Your task to perform on an android device: turn off airplane mode Image 0: 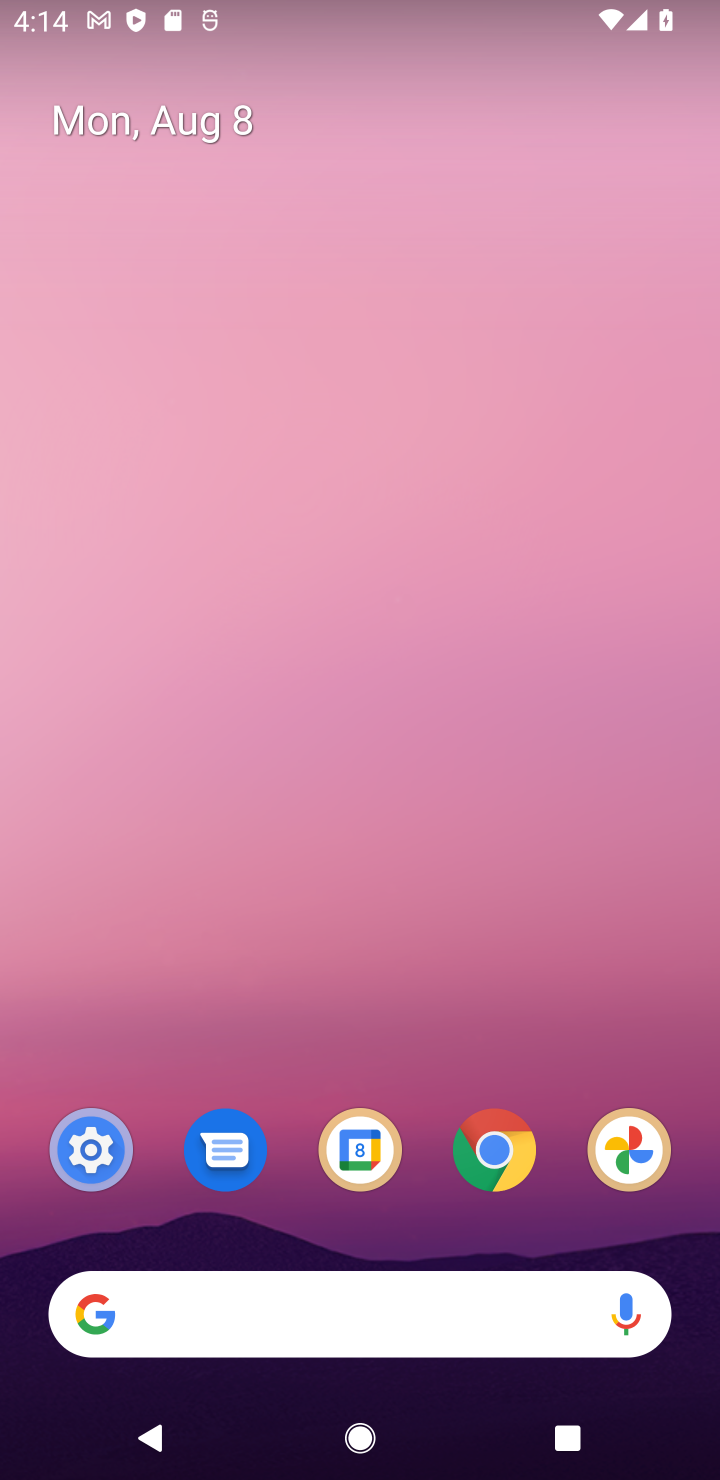
Step 0: click (103, 1170)
Your task to perform on an android device: turn off airplane mode Image 1: 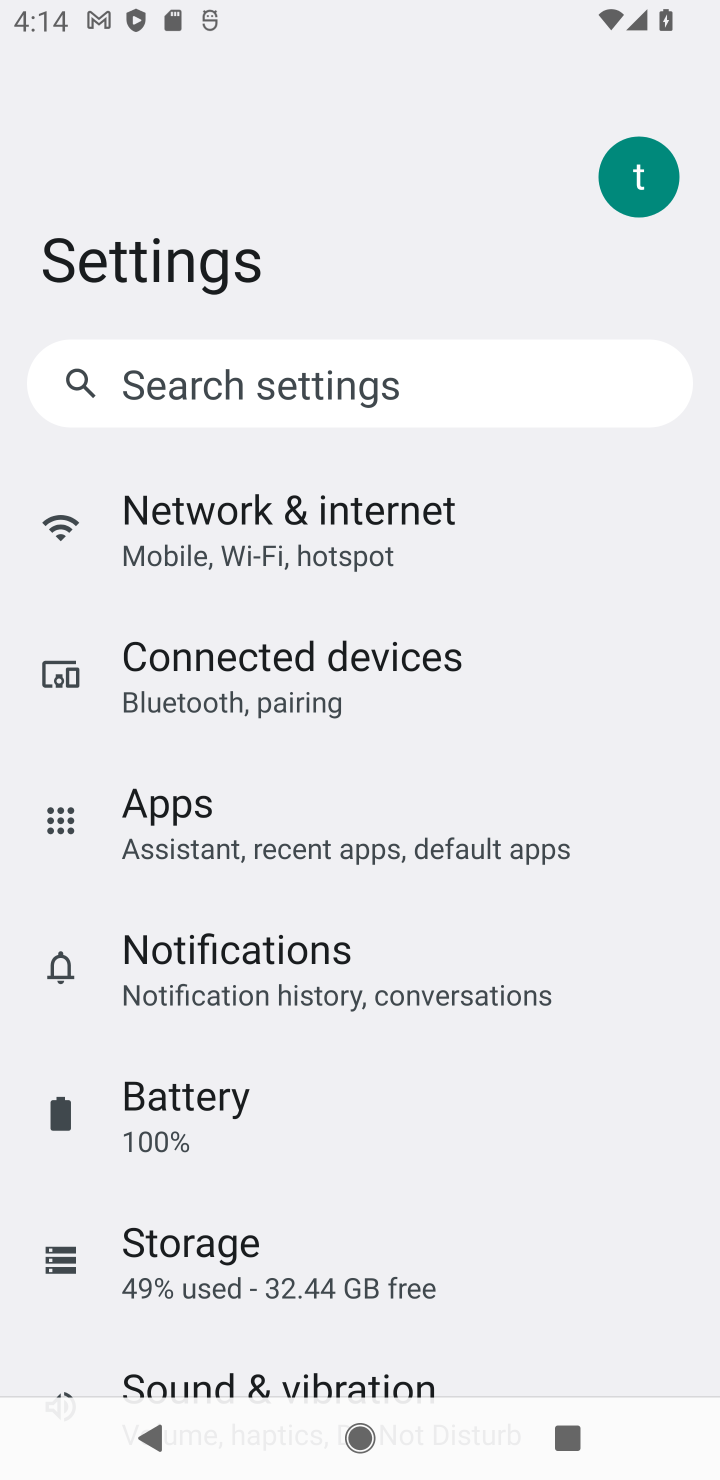
Step 1: click (256, 814)
Your task to perform on an android device: turn off airplane mode Image 2: 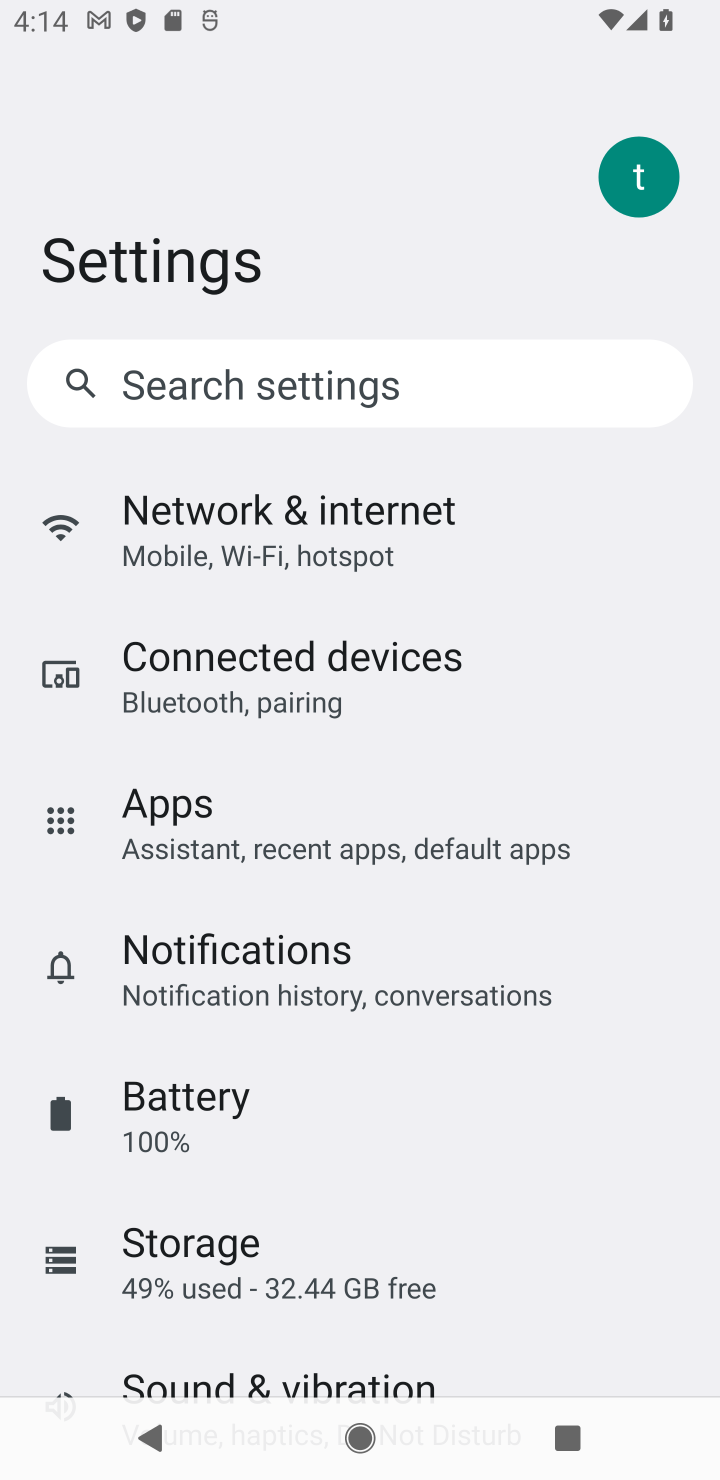
Step 2: task complete